Your task to perform on an android device: Open the stopwatch Image 0: 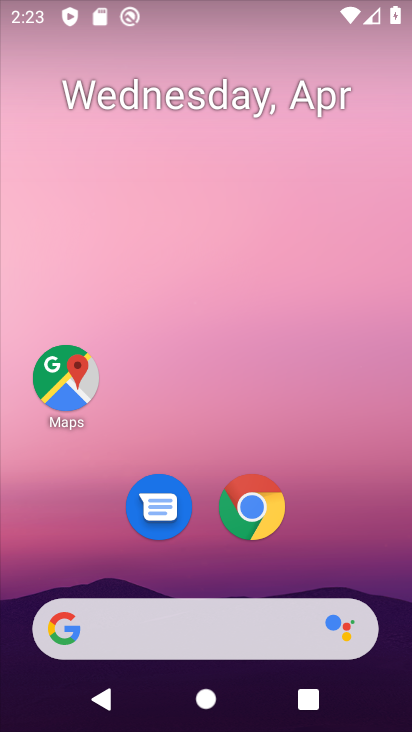
Step 0: drag from (356, 505) to (338, 40)
Your task to perform on an android device: Open the stopwatch Image 1: 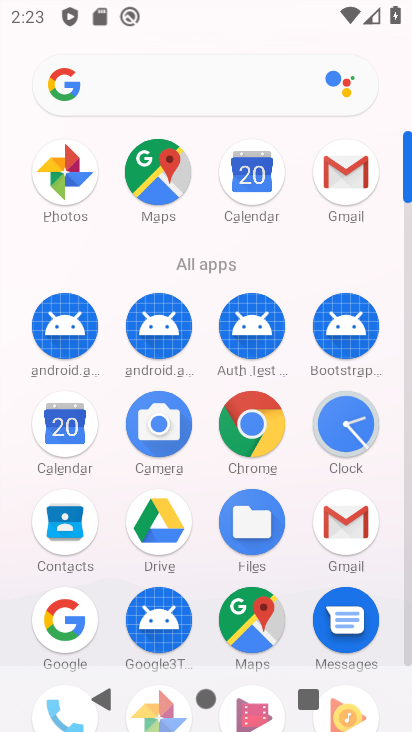
Step 1: click (331, 411)
Your task to perform on an android device: Open the stopwatch Image 2: 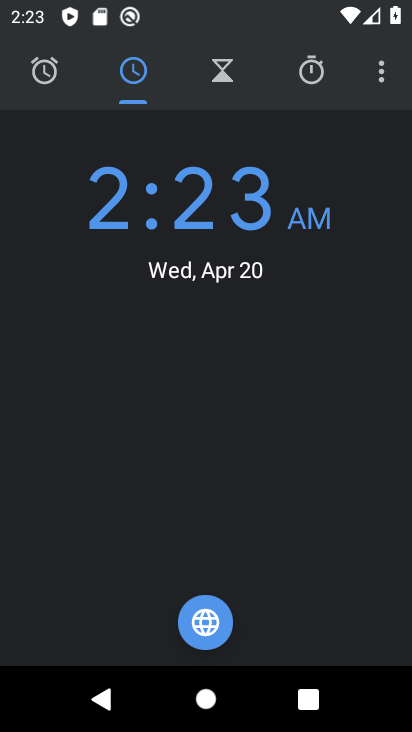
Step 2: click (221, 69)
Your task to perform on an android device: Open the stopwatch Image 3: 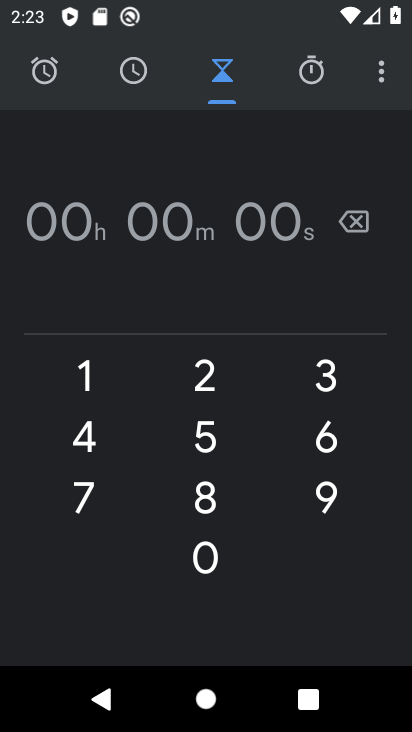
Step 3: click (83, 374)
Your task to perform on an android device: Open the stopwatch Image 4: 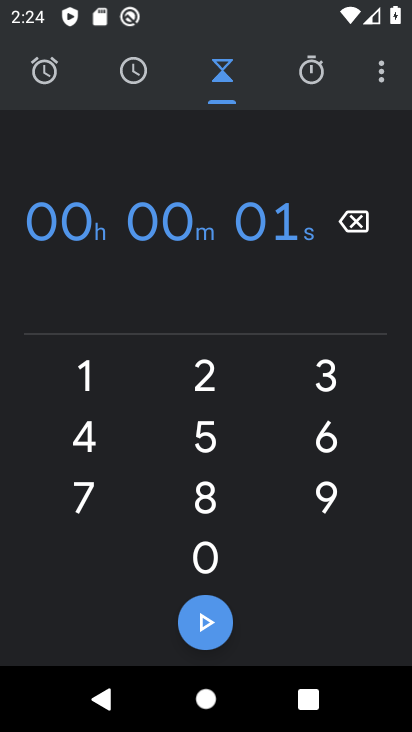
Step 4: task complete